Your task to perform on an android device: install app "Instagram" Image 0: 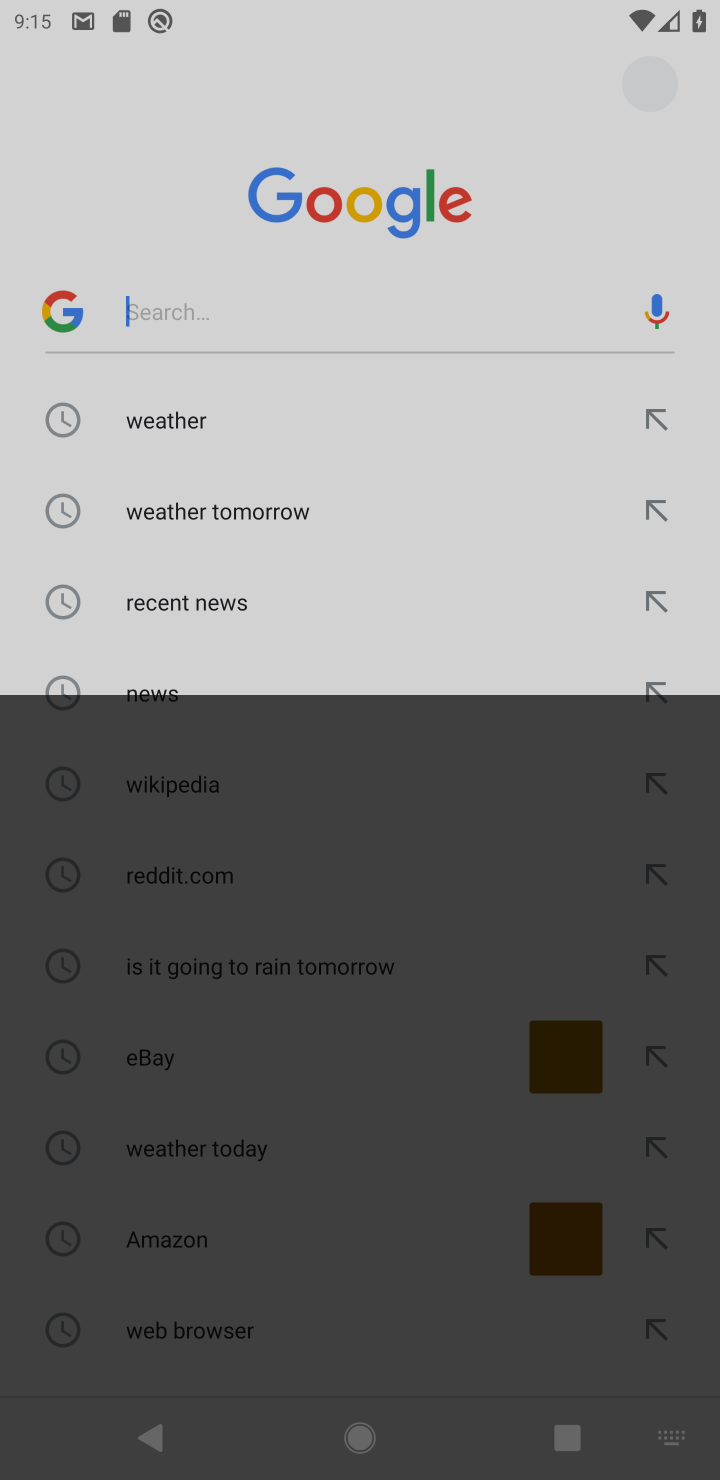
Step 0: press home button
Your task to perform on an android device: install app "Instagram" Image 1: 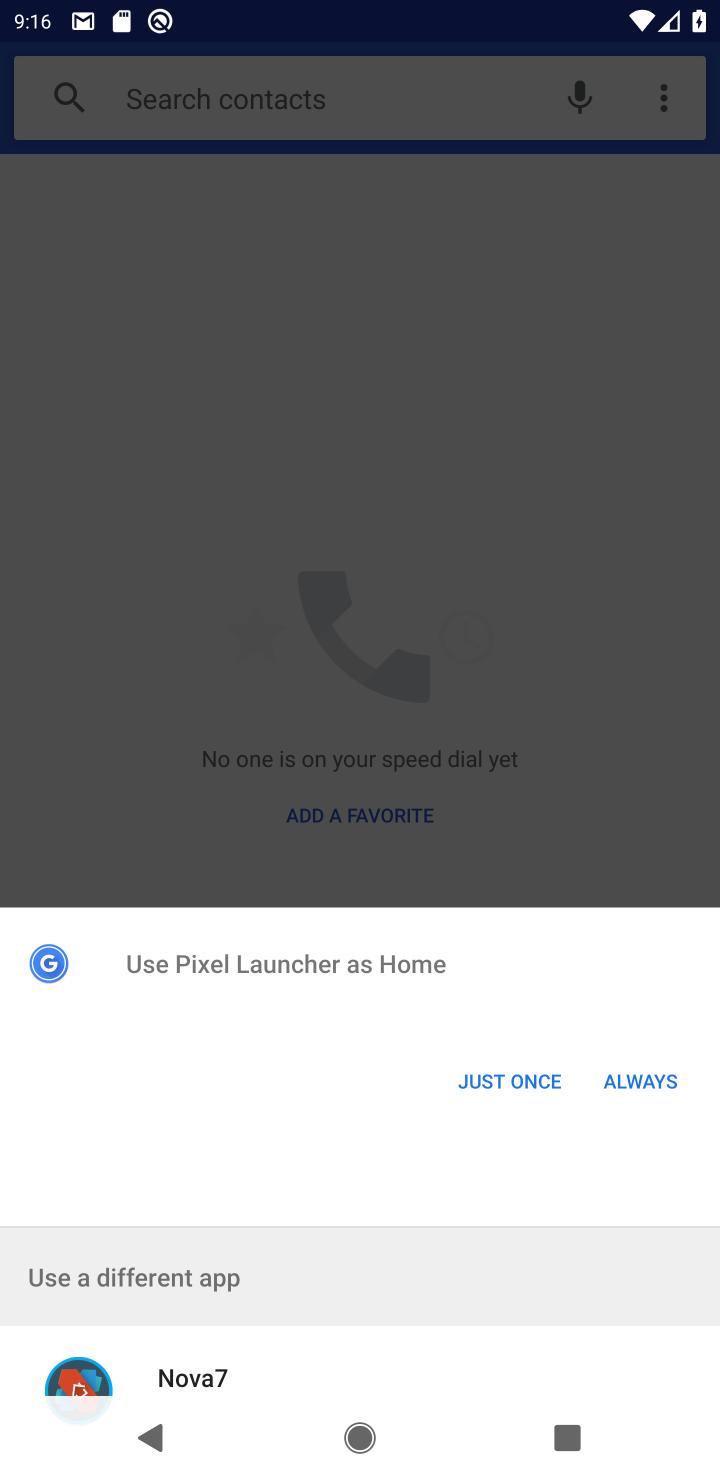
Step 1: press back button
Your task to perform on an android device: install app "Instagram" Image 2: 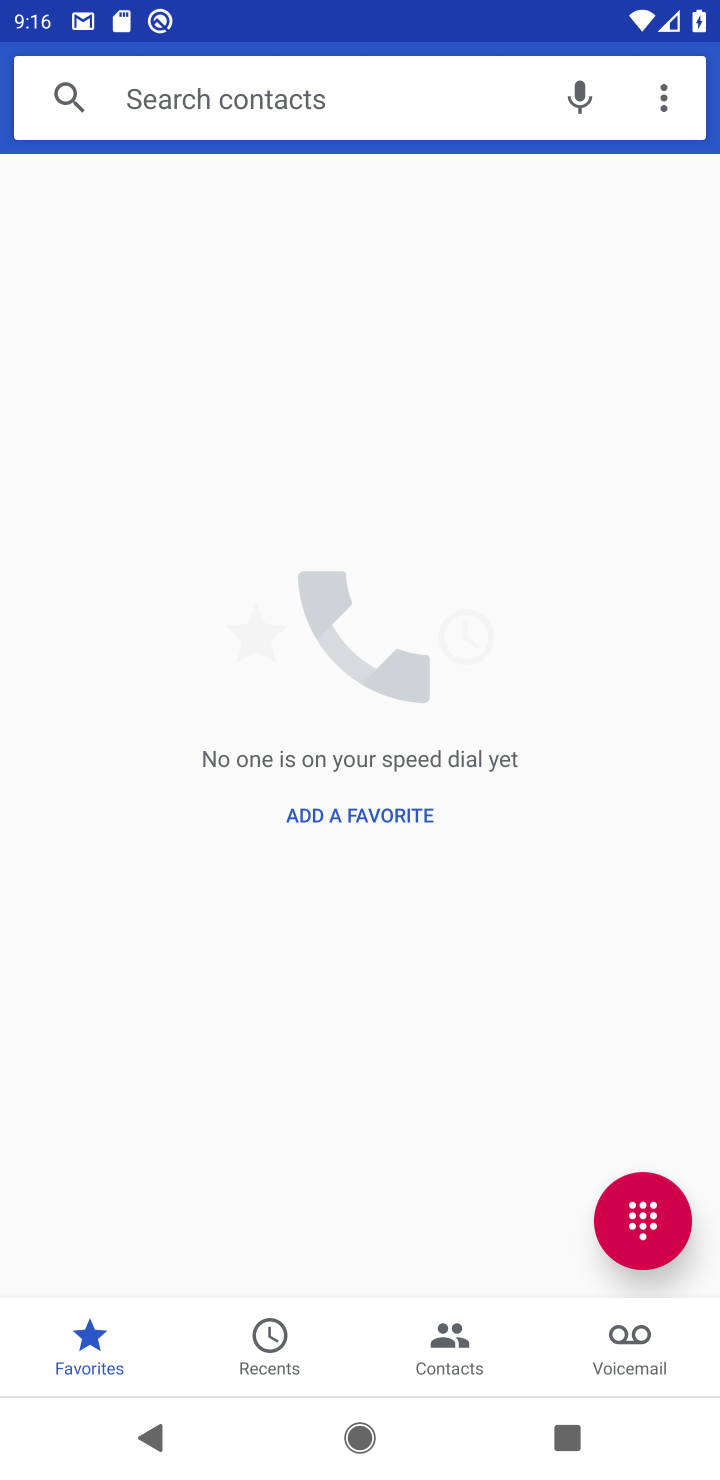
Step 2: press back button
Your task to perform on an android device: install app "Instagram" Image 3: 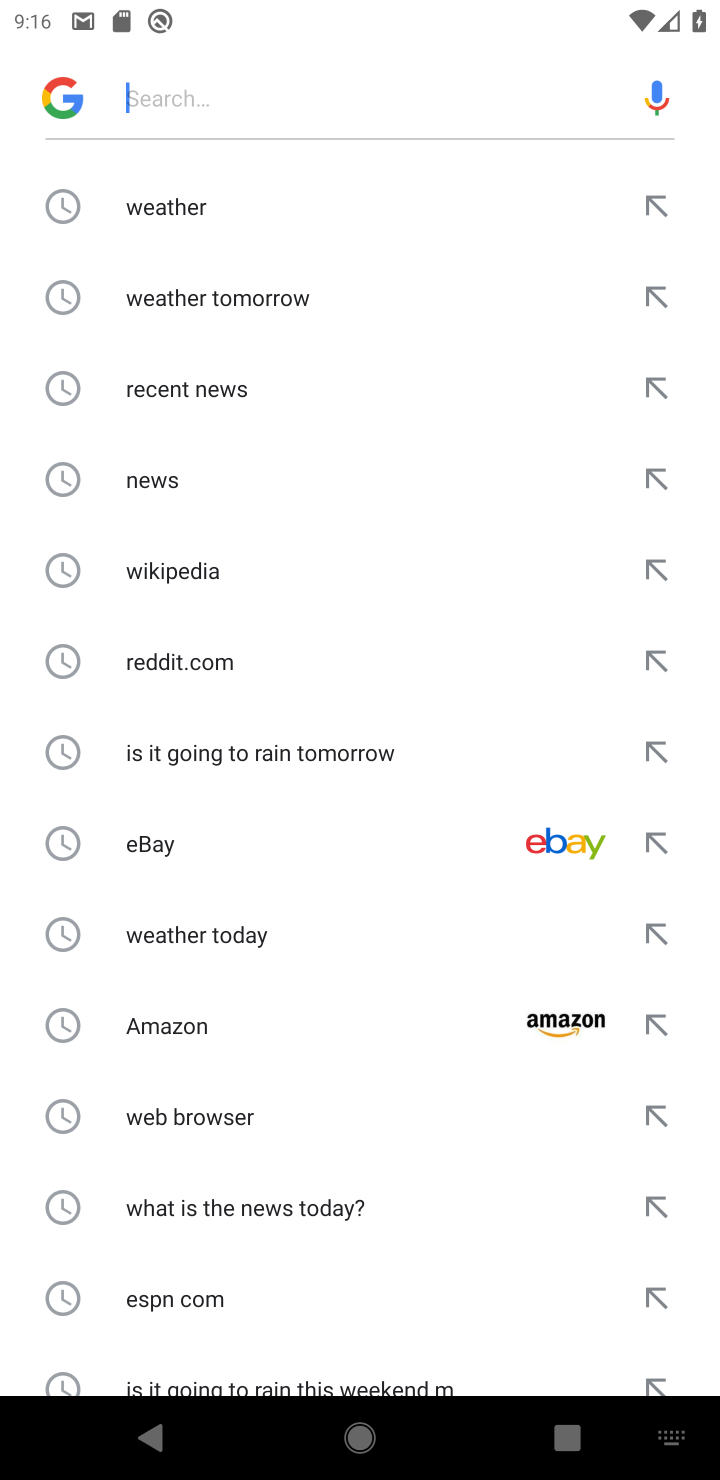
Step 3: press back button
Your task to perform on an android device: install app "Instagram" Image 4: 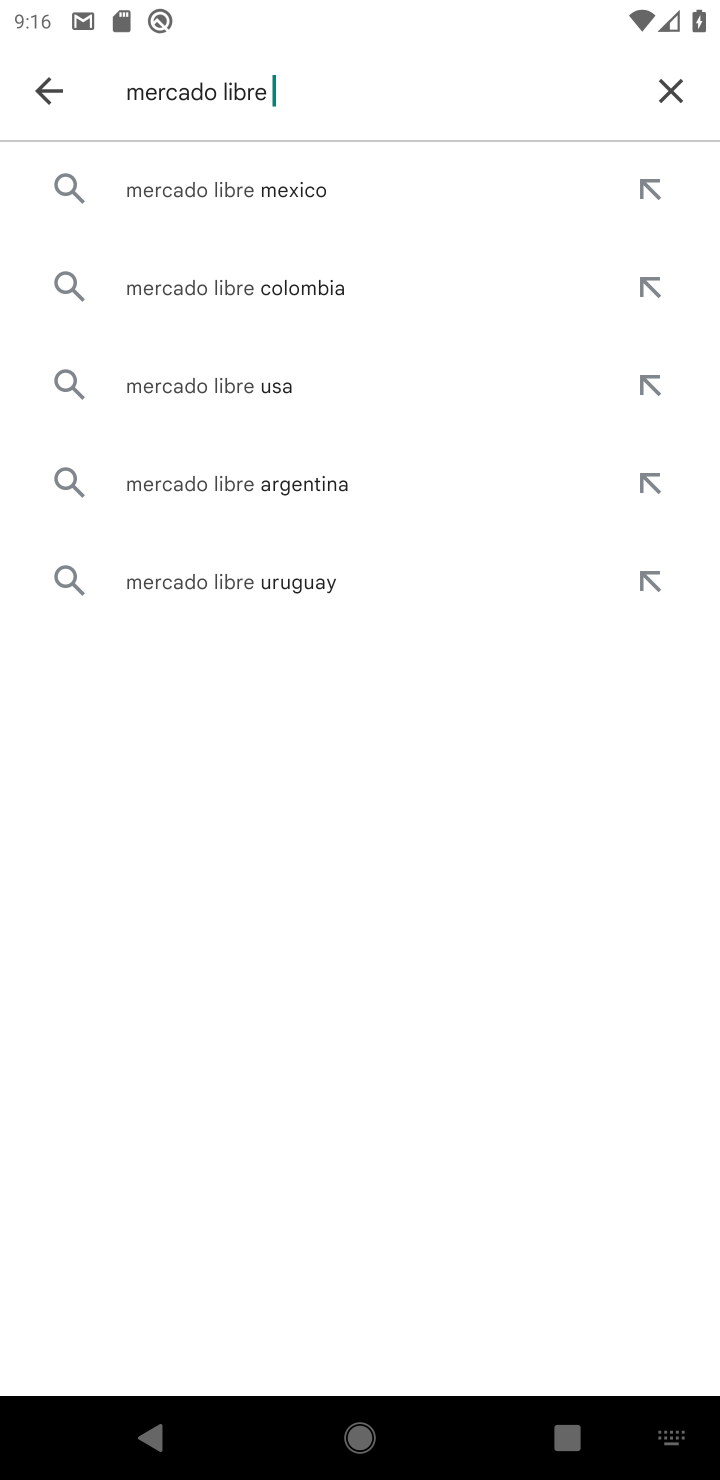
Step 4: click (673, 91)
Your task to perform on an android device: install app "Instagram" Image 5: 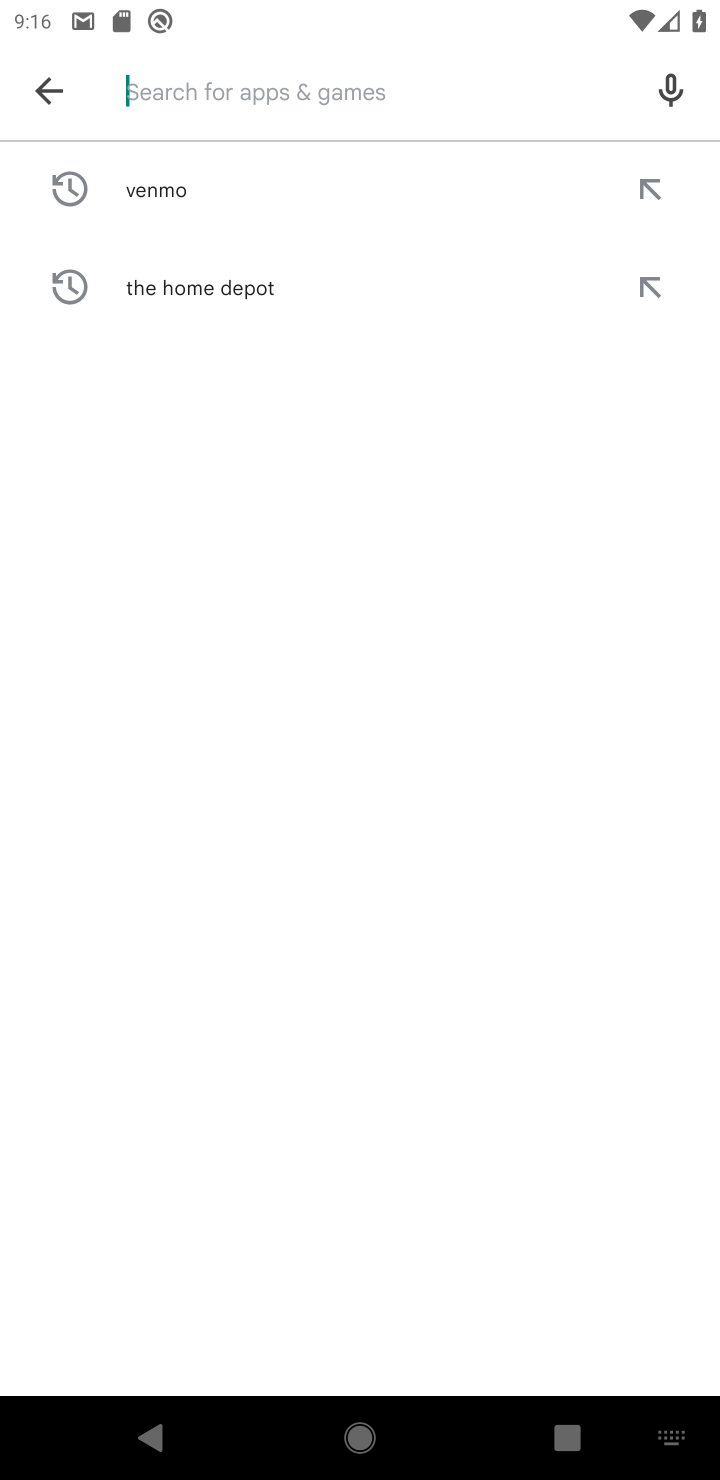
Step 5: type "instagram"
Your task to perform on an android device: install app "Instagram" Image 6: 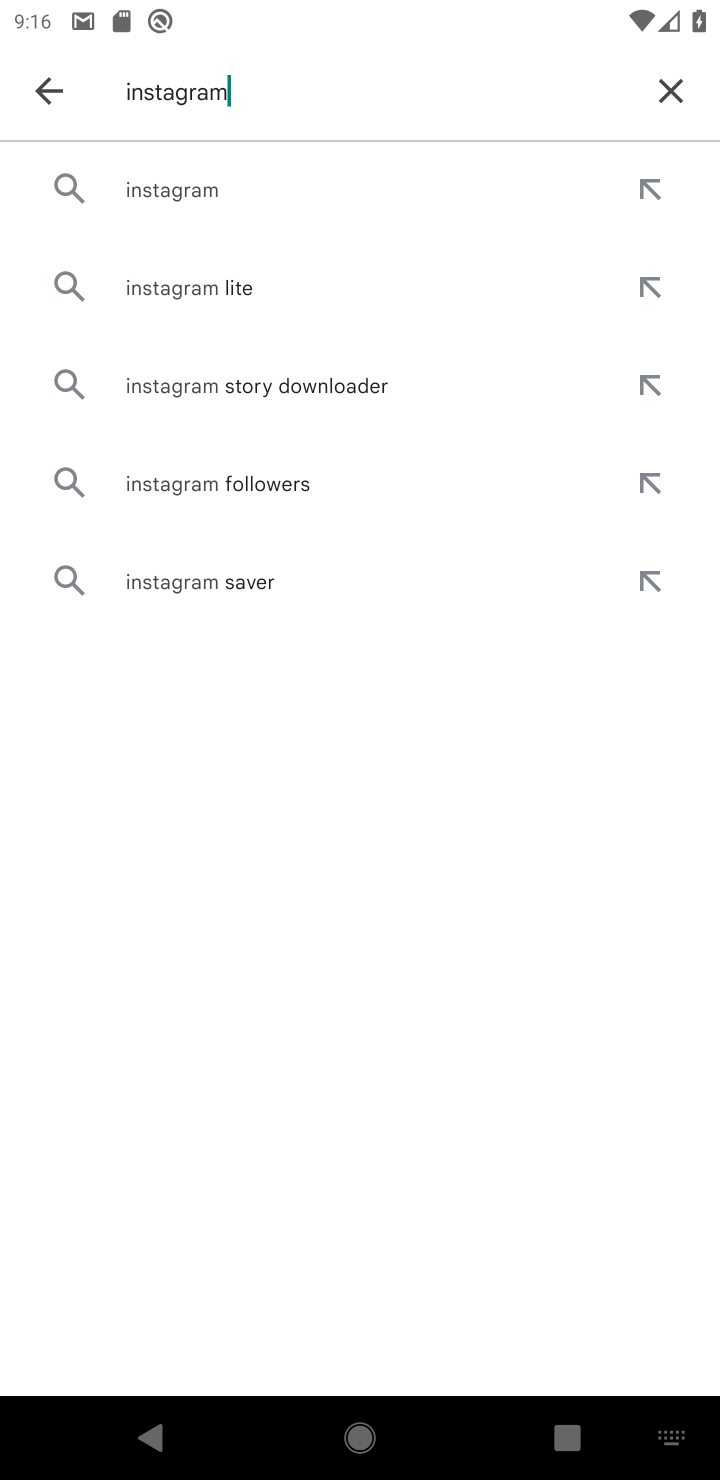
Step 6: click (214, 176)
Your task to perform on an android device: install app "Instagram" Image 7: 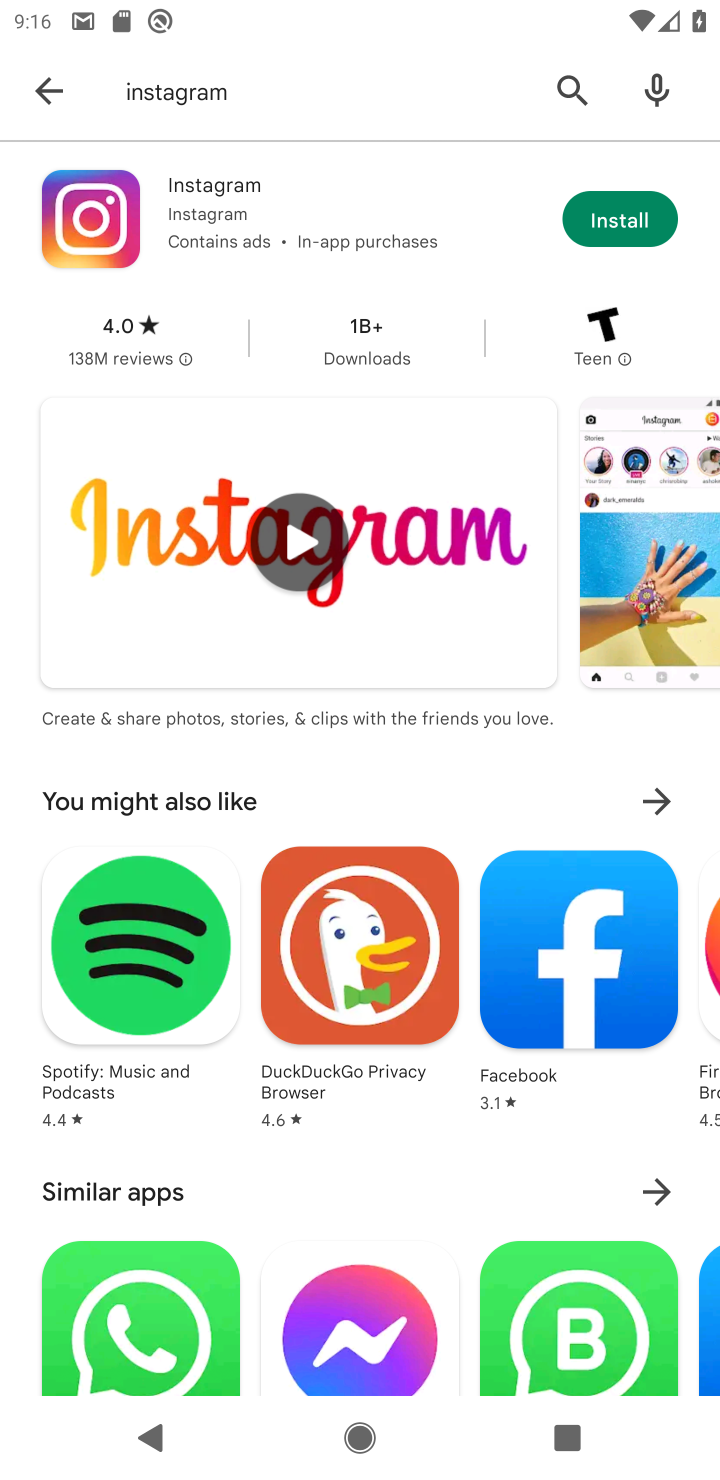
Step 7: click (628, 220)
Your task to perform on an android device: install app "Instagram" Image 8: 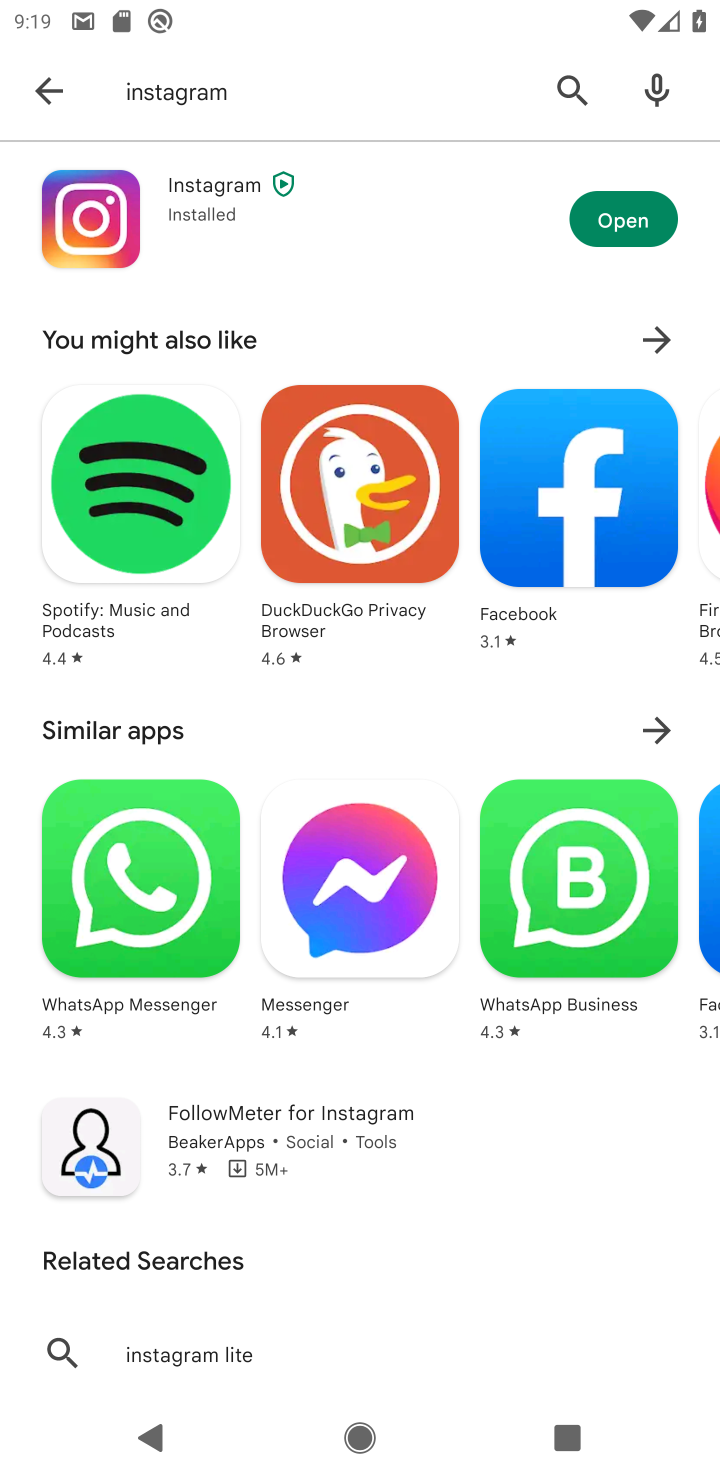
Step 8: task complete